Your task to perform on an android device: move an email to a new category in the gmail app Image 0: 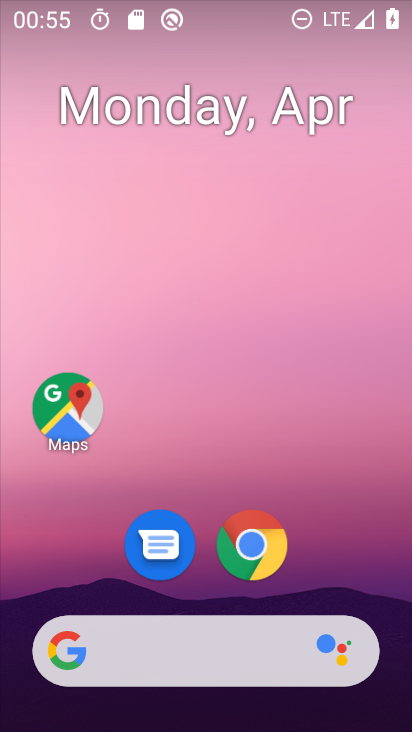
Step 0: drag from (324, 419) to (324, 242)
Your task to perform on an android device: move an email to a new category in the gmail app Image 1: 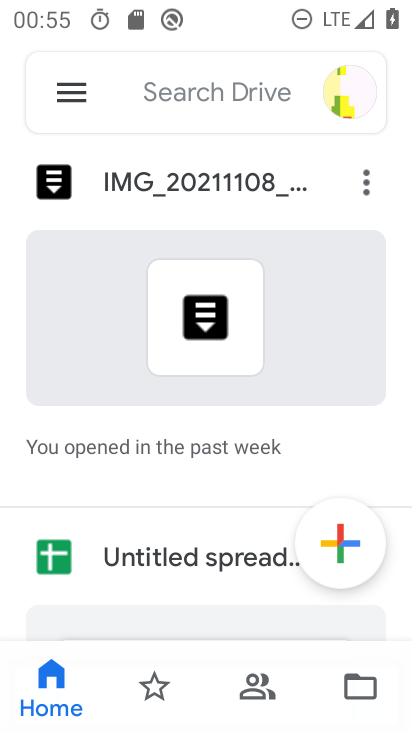
Step 1: press home button
Your task to perform on an android device: move an email to a new category in the gmail app Image 2: 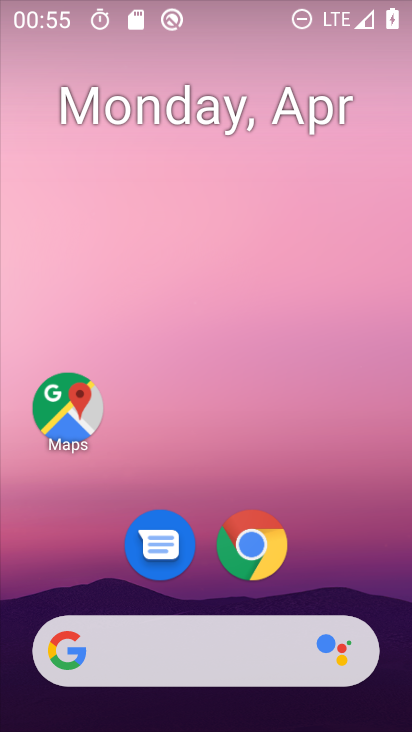
Step 2: drag from (305, 514) to (286, 228)
Your task to perform on an android device: move an email to a new category in the gmail app Image 3: 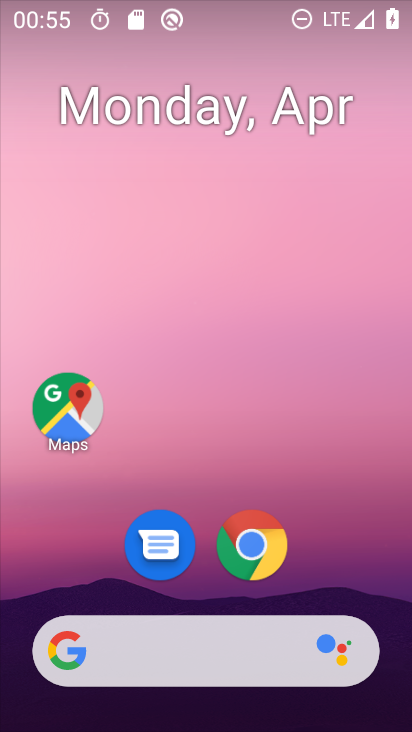
Step 3: drag from (334, 551) to (303, 184)
Your task to perform on an android device: move an email to a new category in the gmail app Image 4: 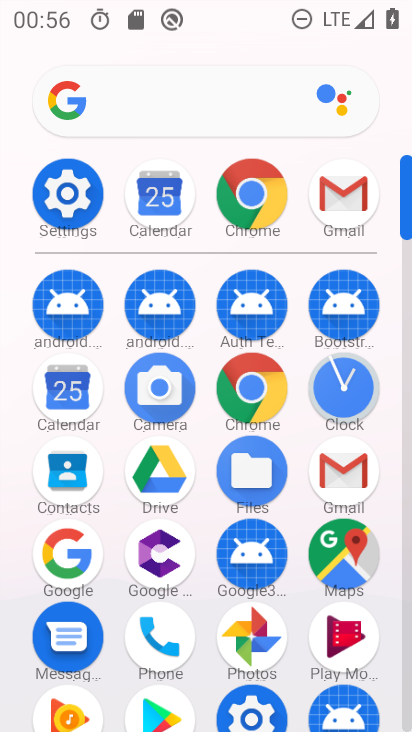
Step 4: click (349, 460)
Your task to perform on an android device: move an email to a new category in the gmail app Image 5: 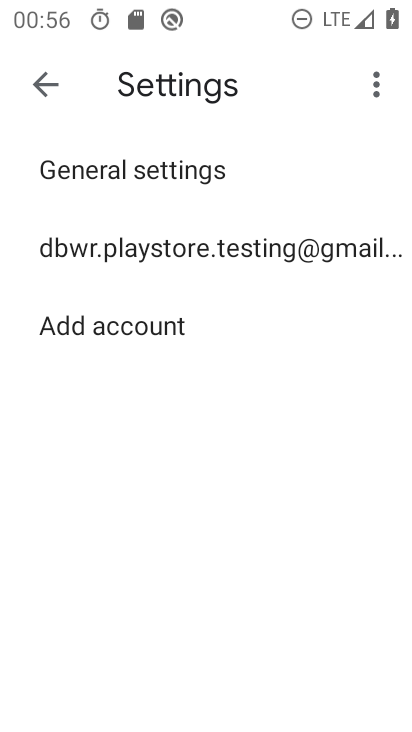
Step 5: click (51, 90)
Your task to perform on an android device: move an email to a new category in the gmail app Image 6: 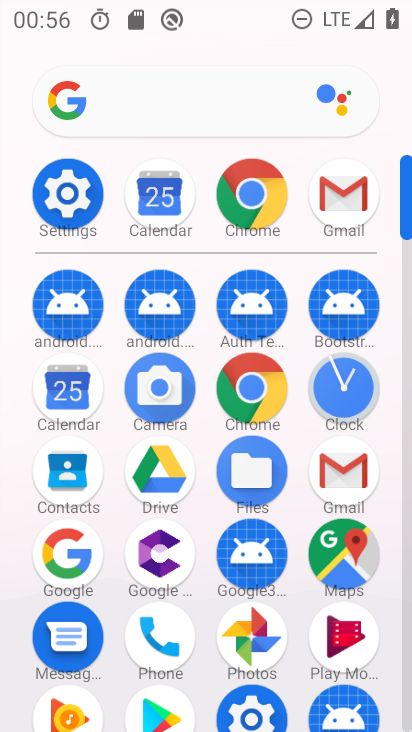
Step 6: click (338, 184)
Your task to perform on an android device: move an email to a new category in the gmail app Image 7: 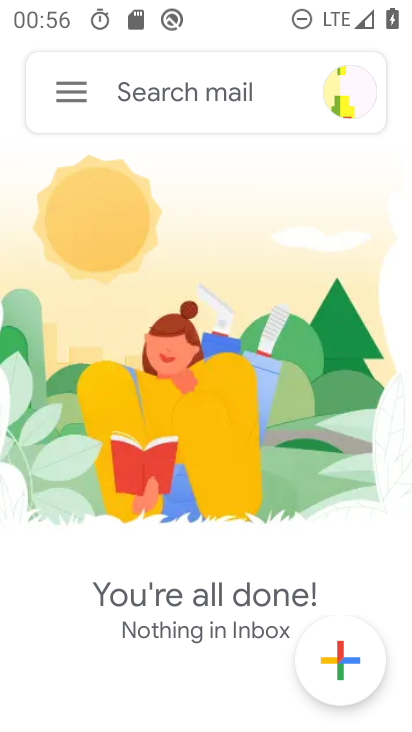
Step 7: click (56, 94)
Your task to perform on an android device: move an email to a new category in the gmail app Image 8: 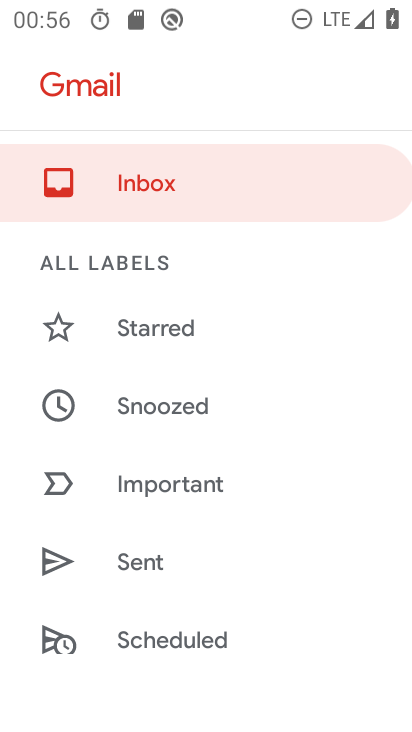
Step 8: drag from (164, 613) to (219, 208)
Your task to perform on an android device: move an email to a new category in the gmail app Image 9: 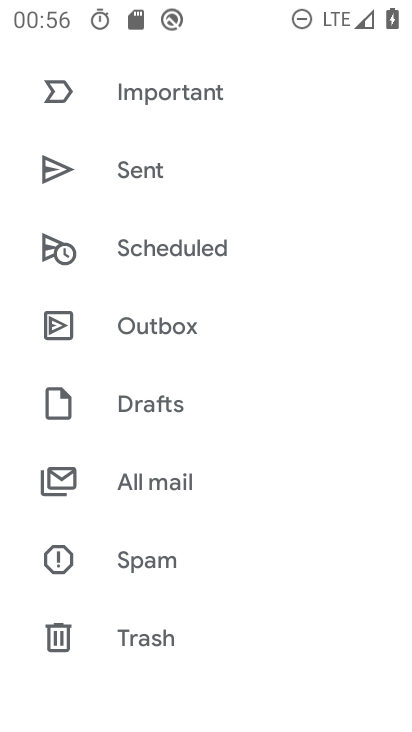
Step 9: click (173, 477)
Your task to perform on an android device: move an email to a new category in the gmail app Image 10: 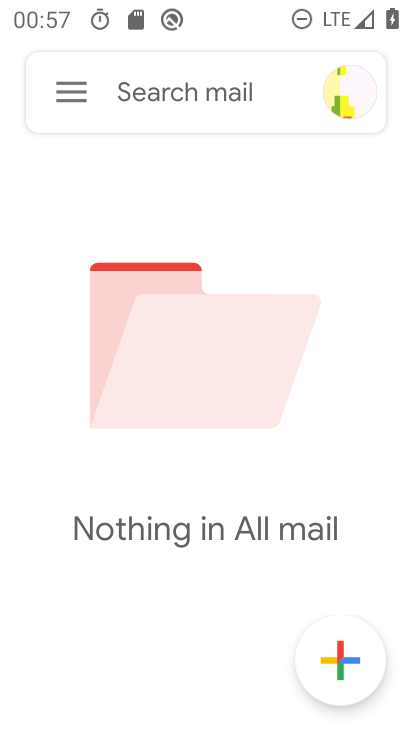
Step 10: task complete